Your task to perform on an android device: Open Chrome and go to settings Image 0: 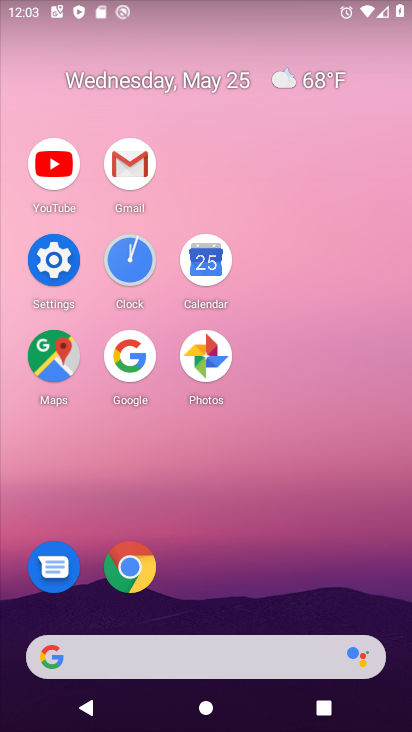
Step 0: click (143, 567)
Your task to perform on an android device: Open Chrome and go to settings Image 1: 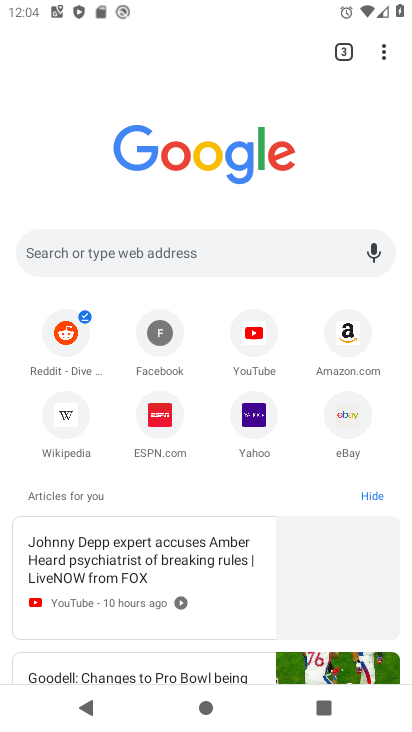
Step 1: click (381, 54)
Your task to perform on an android device: Open Chrome and go to settings Image 2: 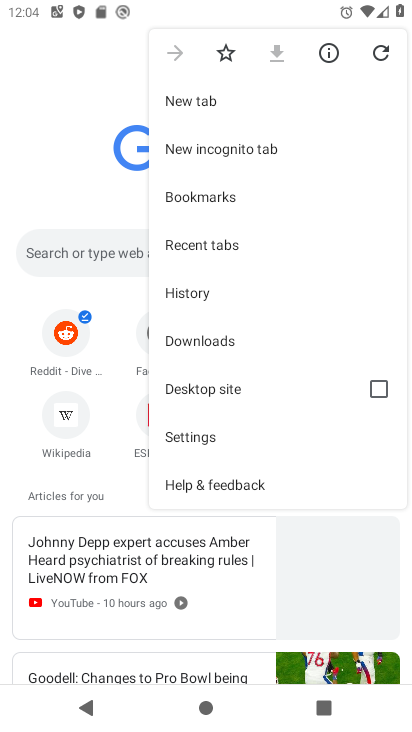
Step 2: click (240, 419)
Your task to perform on an android device: Open Chrome and go to settings Image 3: 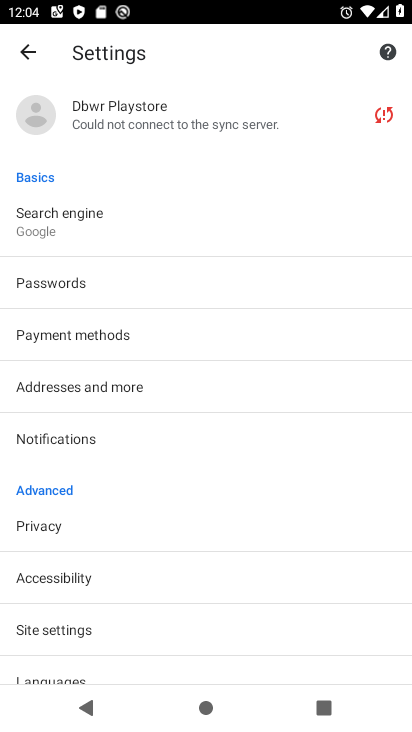
Step 3: task complete